Your task to perform on an android device: clear history in the chrome app Image 0: 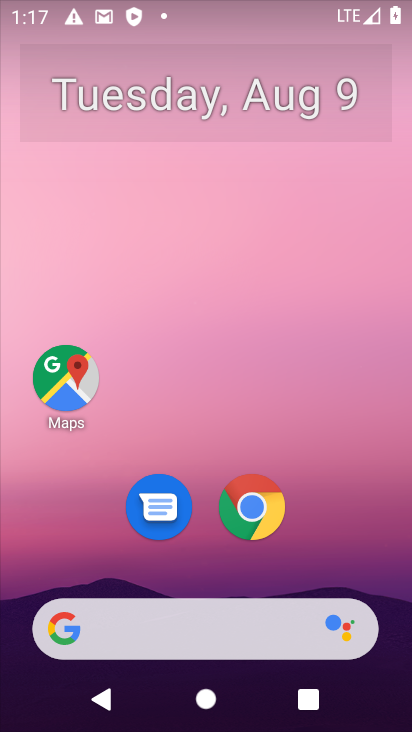
Step 0: click (260, 530)
Your task to perform on an android device: clear history in the chrome app Image 1: 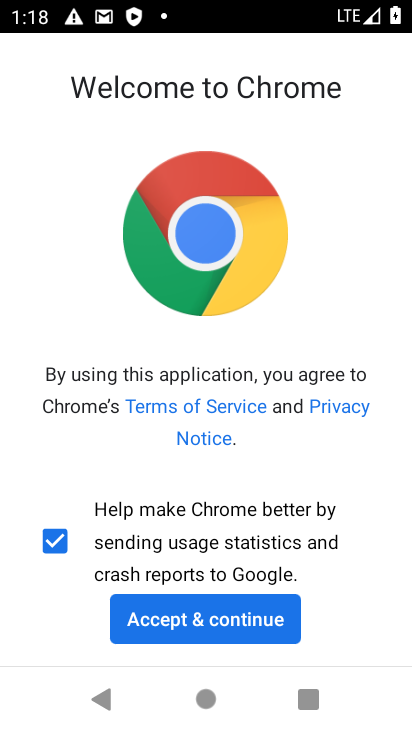
Step 1: click (185, 613)
Your task to perform on an android device: clear history in the chrome app Image 2: 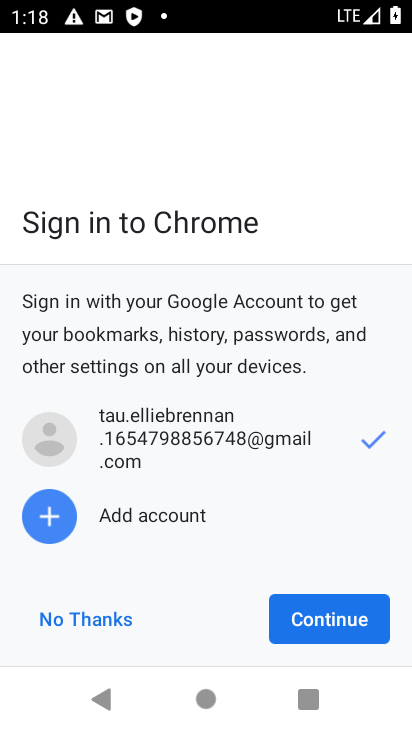
Step 2: click (279, 614)
Your task to perform on an android device: clear history in the chrome app Image 3: 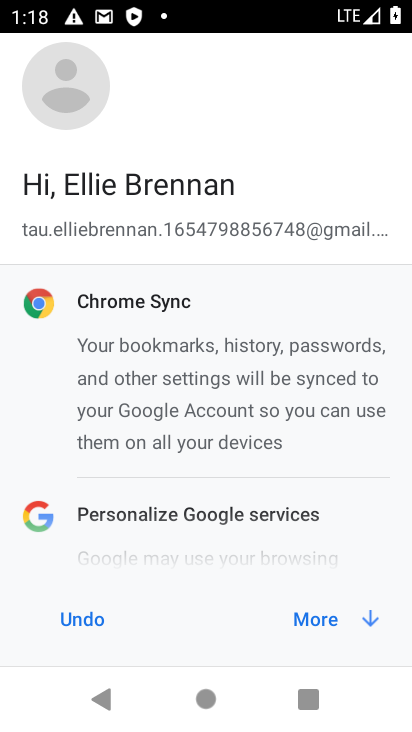
Step 3: click (310, 617)
Your task to perform on an android device: clear history in the chrome app Image 4: 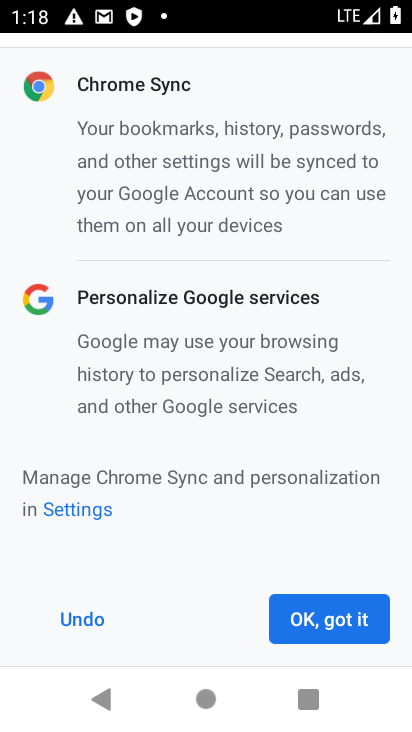
Step 4: click (311, 617)
Your task to perform on an android device: clear history in the chrome app Image 5: 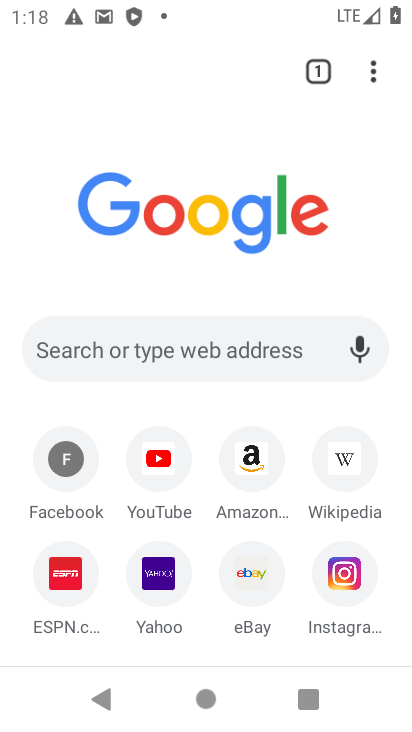
Step 5: click (384, 83)
Your task to perform on an android device: clear history in the chrome app Image 6: 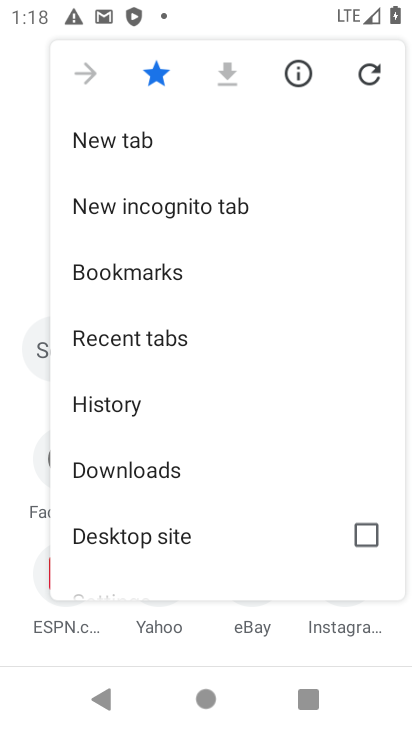
Step 6: click (137, 411)
Your task to perform on an android device: clear history in the chrome app Image 7: 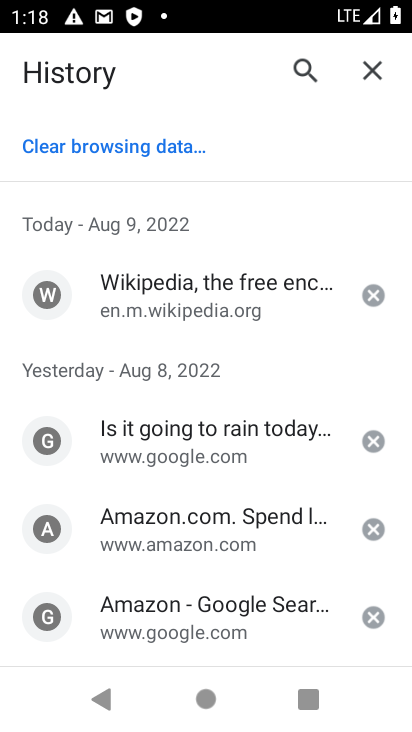
Step 7: click (134, 145)
Your task to perform on an android device: clear history in the chrome app Image 8: 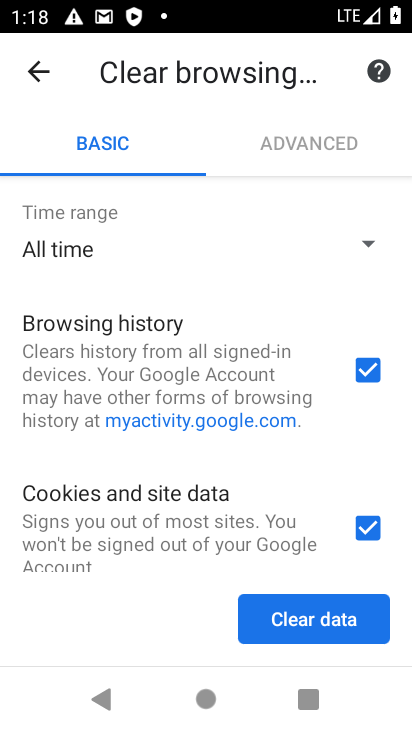
Step 8: click (364, 523)
Your task to perform on an android device: clear history in the chrome app Image 9: 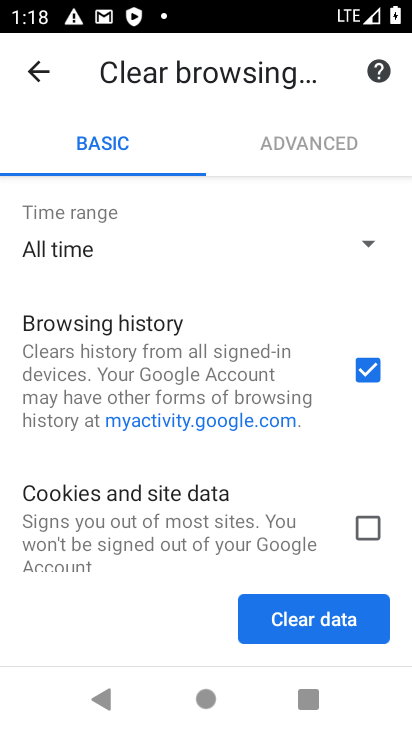
Step 9: click (339, 636)
Your task to perform on an android device: clear history in the chrome app Image 10: 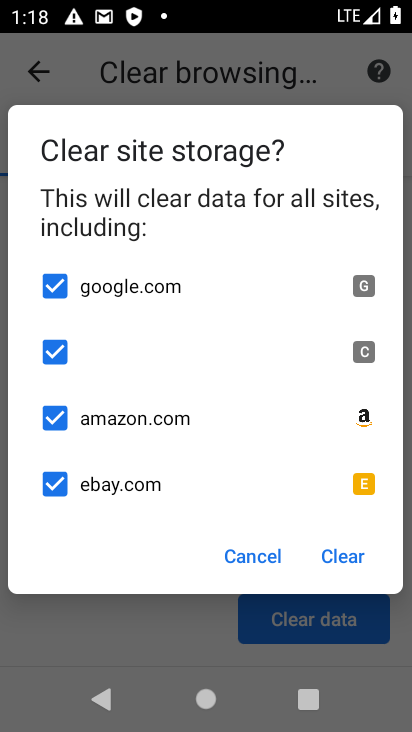
Step 10: click (349, 557)
Your task to perform on an android device: clear history in the chrome app Image 11: 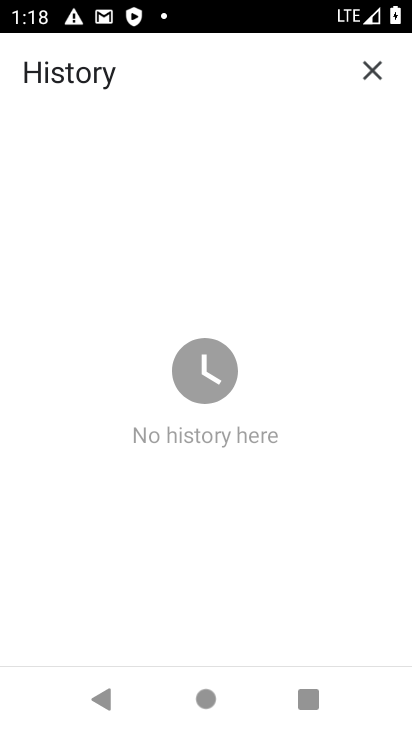
Step 11: task complete